Your task to perform on an android device: open chrome and create a bookmark for the current page Image 0: 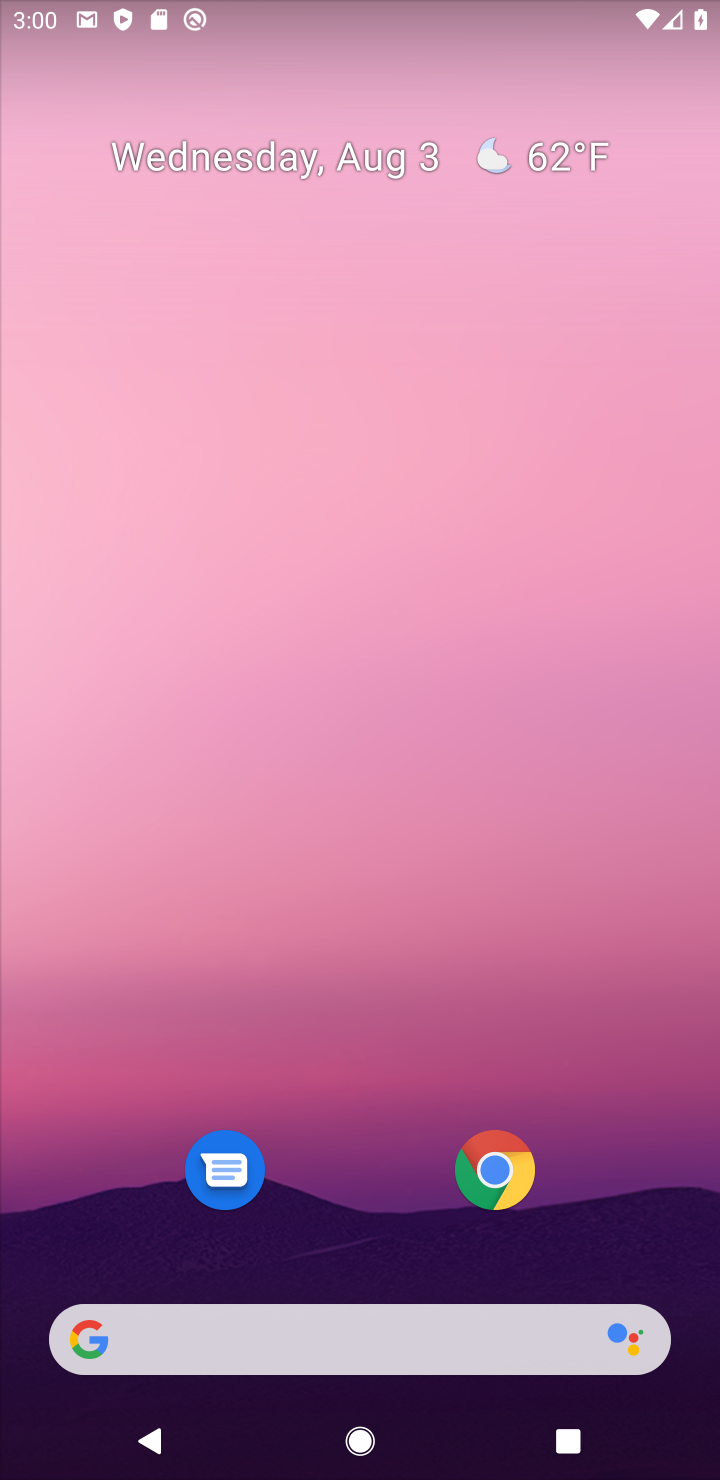
Step 0: click (494, 1171)
Your task to perform on an android device: open chrome and create a bookmark for the current page Image 1: 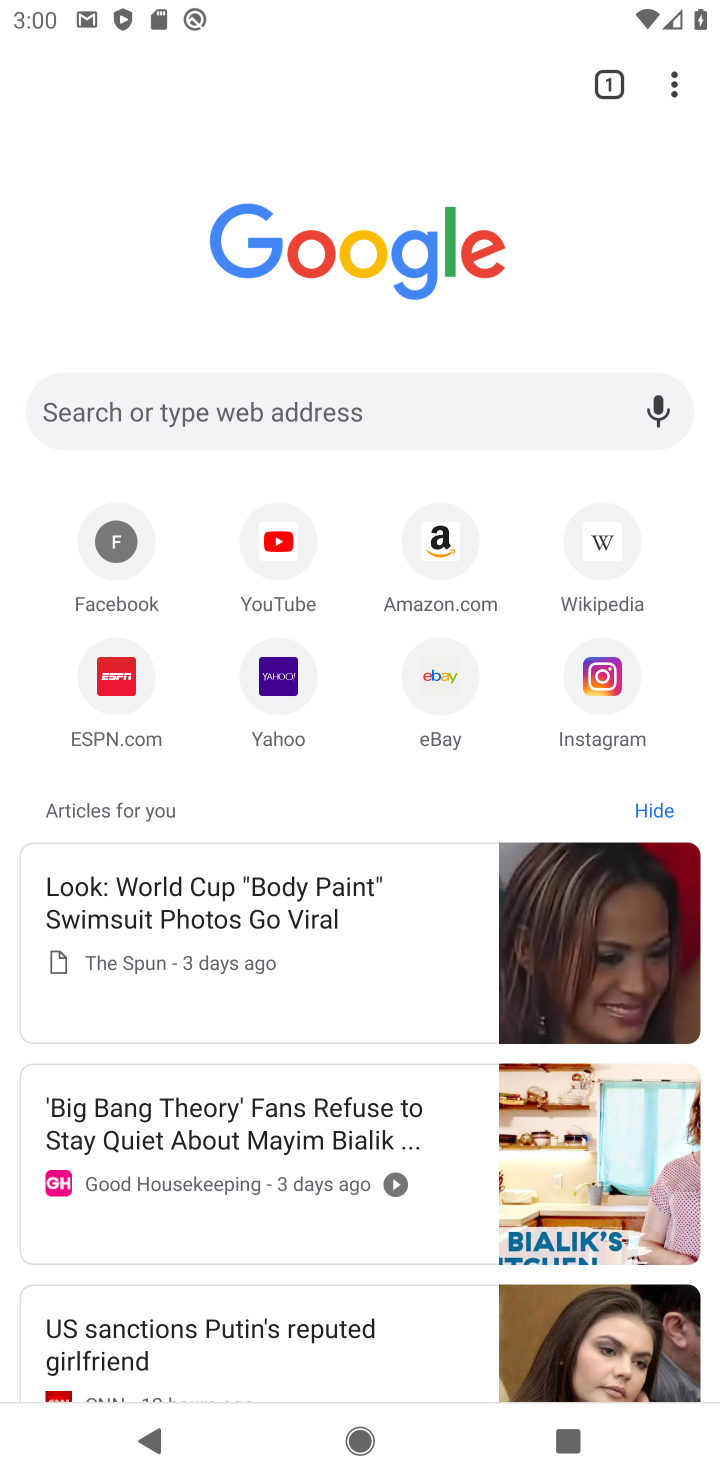
Step 1: click (675, 88)
Your task to perform on an android device: open chrome and create a bookmark for the current page Image 2: 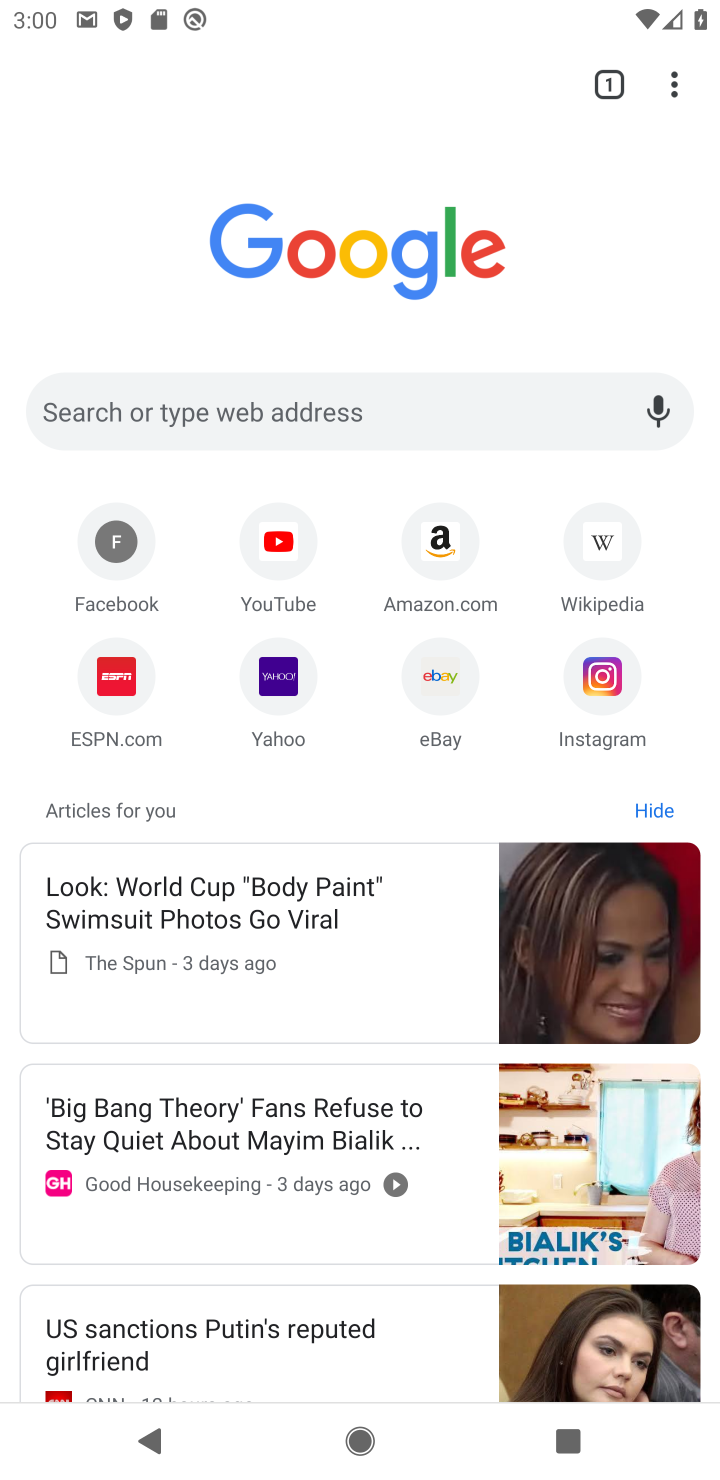
Step 2: click (675, 88)
Your task to perform on an android device: open chrome and create a bookmark for the current page Image 3: 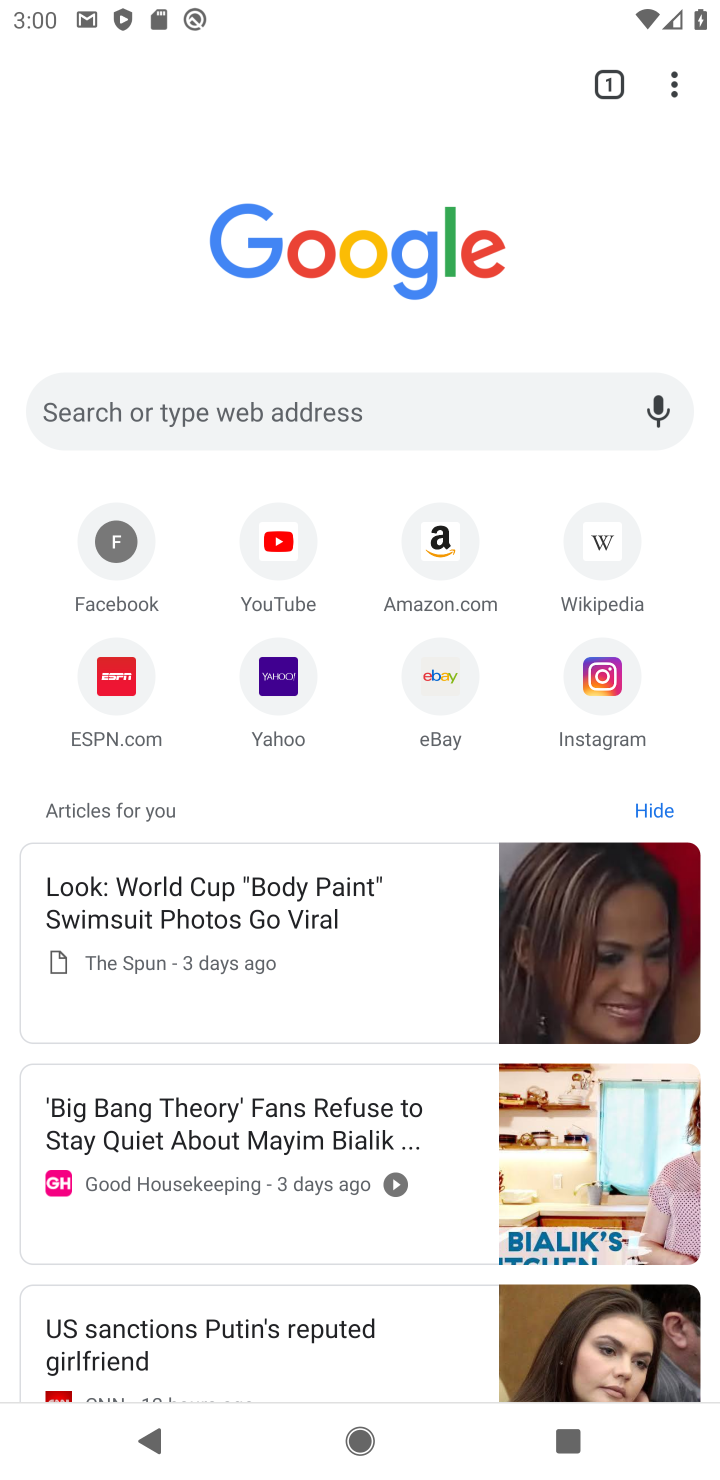
Step 3: click (675, 88)
Your task to perform on an android device: open chrome and create a bookmark for the current page Image 4: 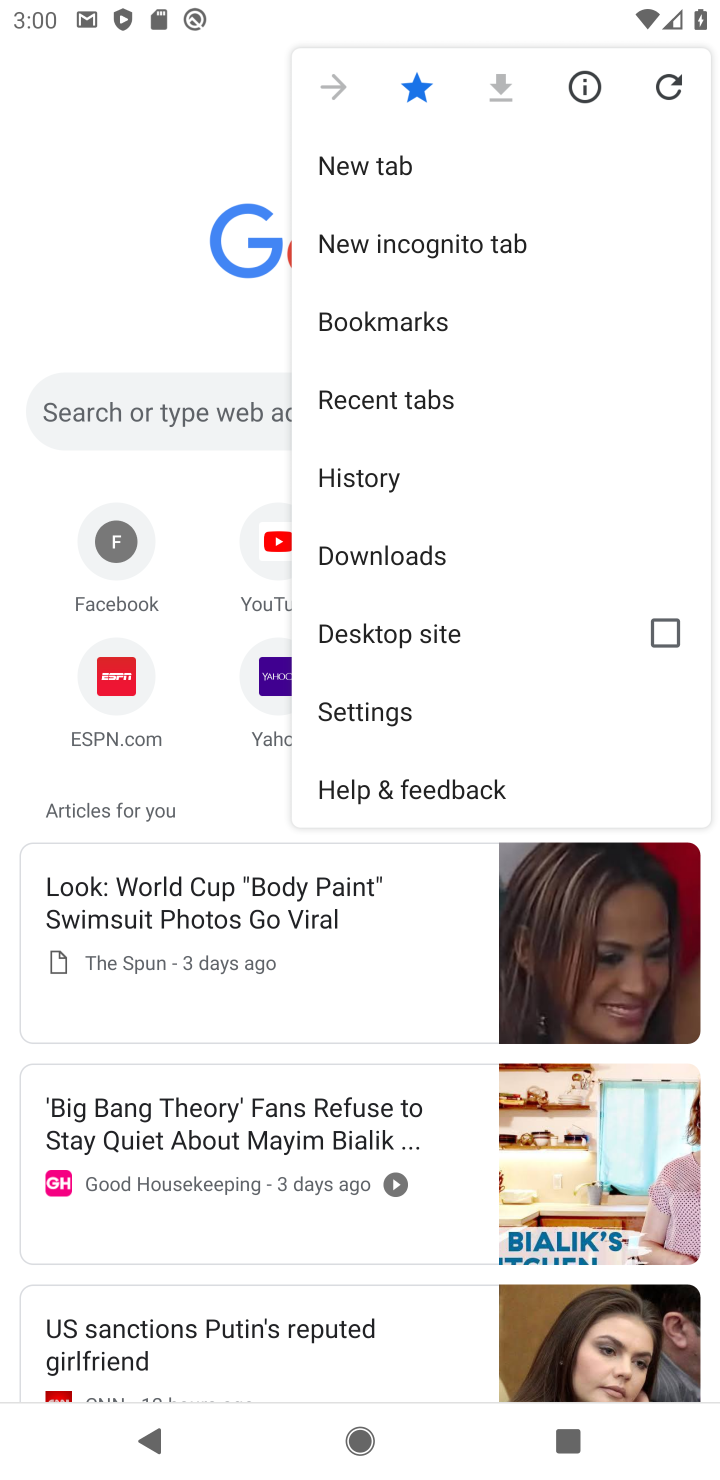
Step 4: task complete